Your task to perform on an android device: toggle translation in the chrome app Image 0: 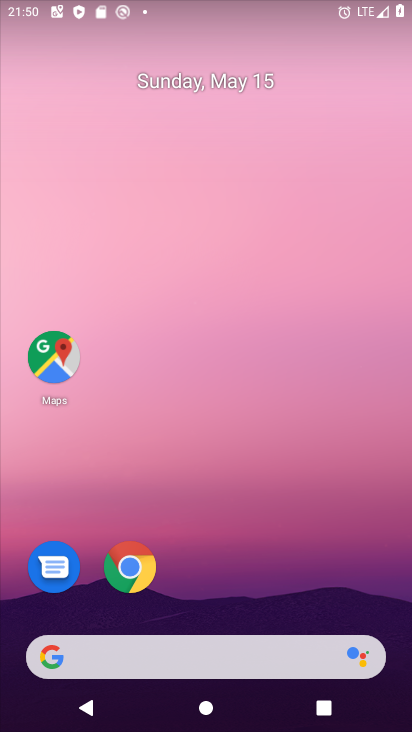
Step 0: click (126, 565)
Your task to perform on an android device: toggle translation in the chrome app Image 1: 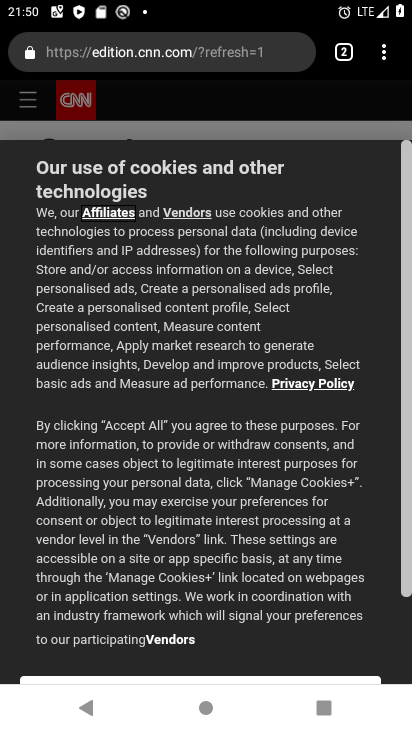
Step 1: click (384, 45)
Your task to perform on an android device: toggle translation in the chrome app Image 2: 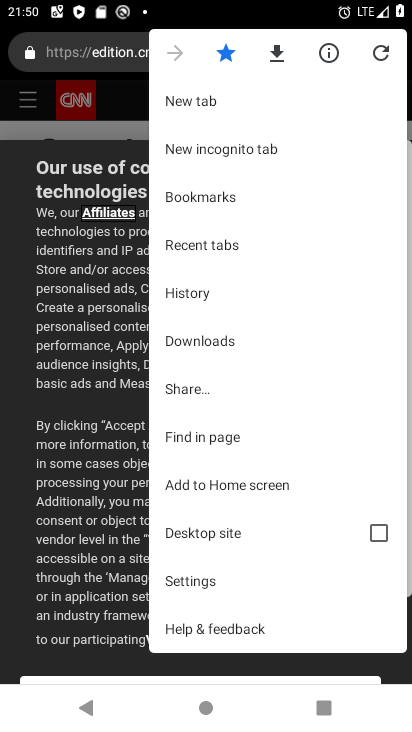
Step 2: click (213, 580)
Your task to perform on an android device: toggle translation in the chrome app Image 3: 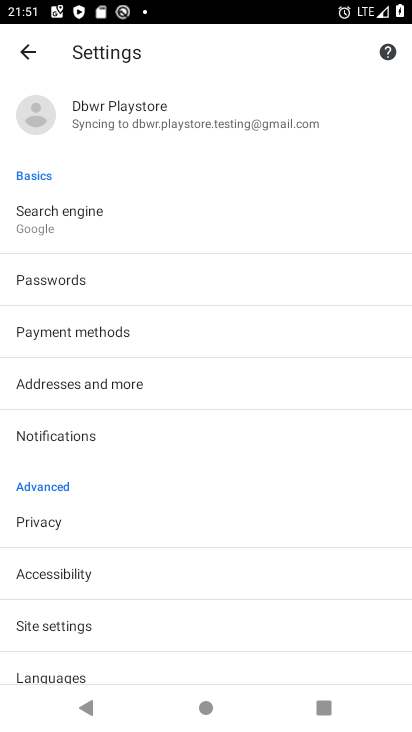
Step 3: click (51, 680)
Your task to perform on an android device: toggle translation in the chrome app Image 4: 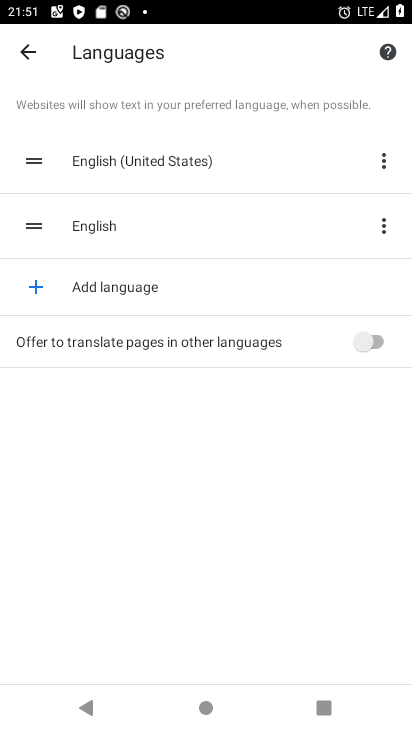
Step 4: click (370, 336)
Your task to perform on an android device: toggle translation in the chrome app Image 5: 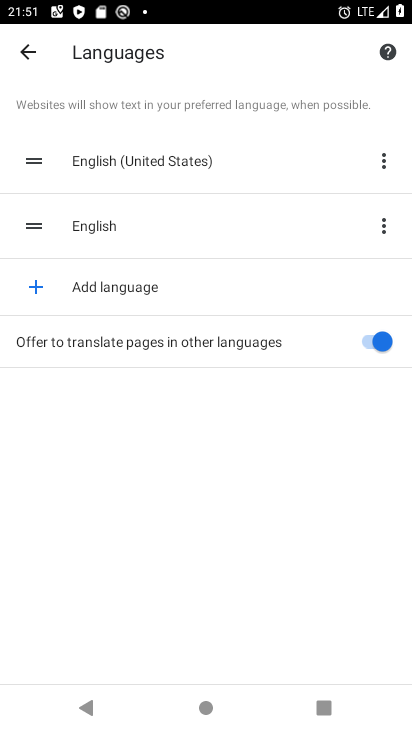
Step 5: task complete